Your task to perform on an android device: toggle pop-ups in chrome Image 0: 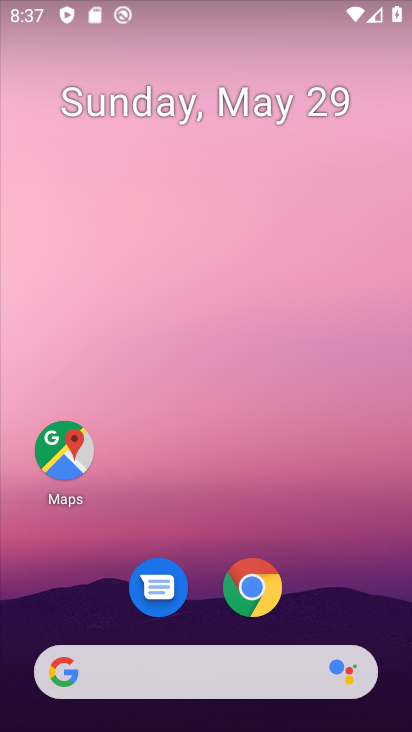
Step 0: click (261, 584)
Your task to perform on an android device: toggle pop-ups in chrome Image 1: 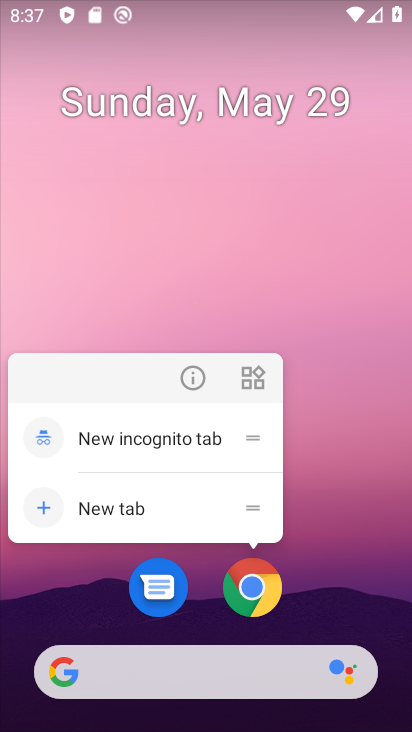
Step 1: click (246, 583)
Your task to perform on an android device: toggle pop-ups in chrome Image 2: 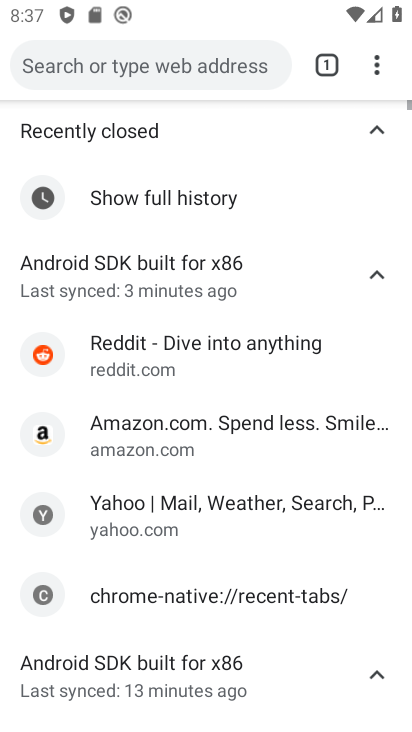
Step 2: drag from (375, 65) to (121, 547)
Your task to perform on an android device: toggle pop-ups in chrome Image 3: 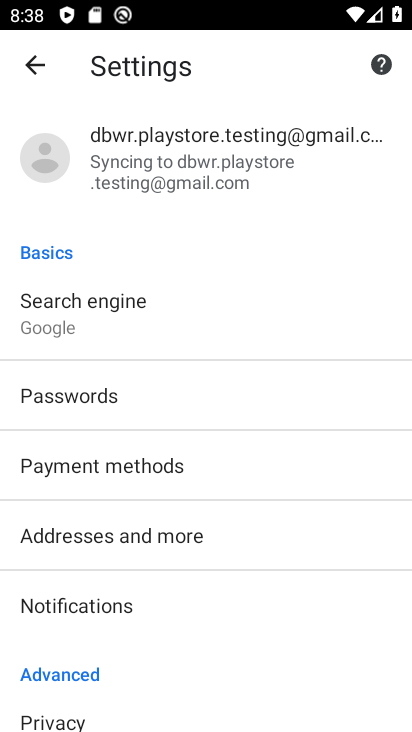
Step 3: drag from (158, 697) to (221, 216)
Your task to perform on an android device: toggle pop-ups in chrome Image 4: 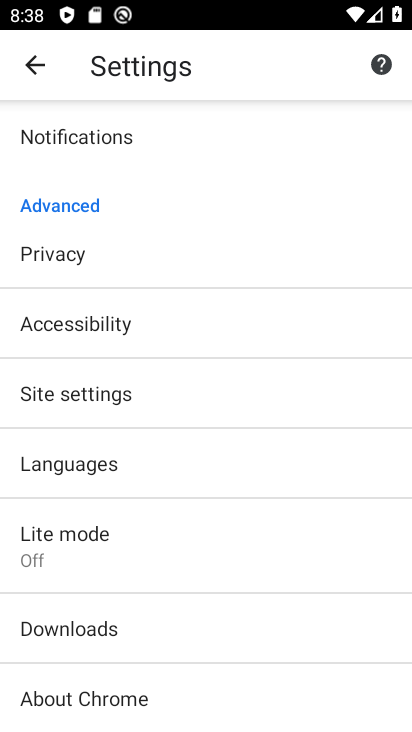
Step 4: click (116, 384)
Your task to perform on an android device: toggle pop-ups in chrome Image 5: 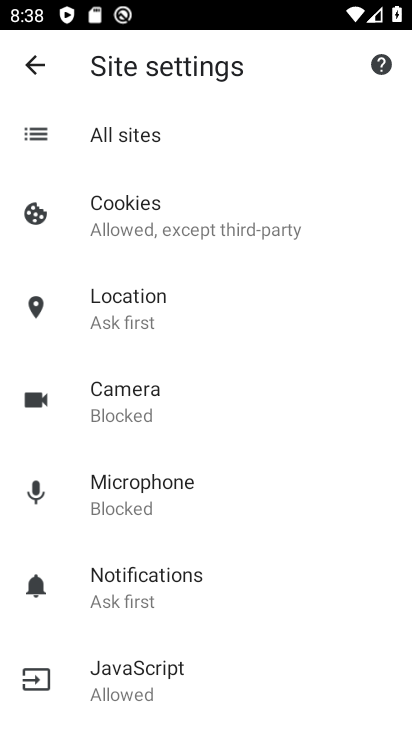
Step 5: drag from (169, 618) to (256, 140)
Your task to perform on an android device: toggle pop-ups in chrome Image 6: 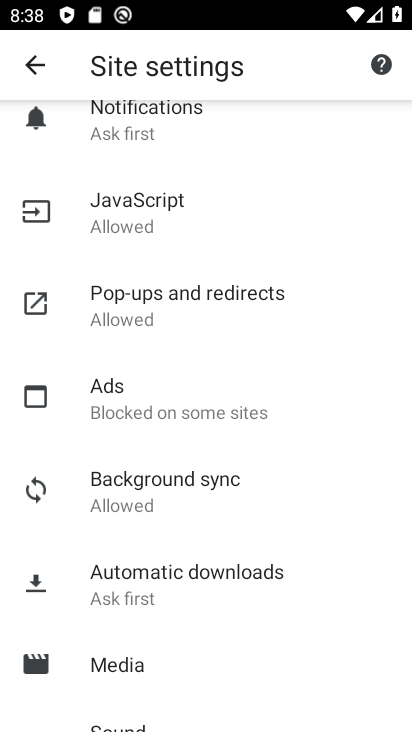
Step 6: click (156, 305)
Your task to perform on an android device: toggle pop-ups in chrome Image 7: 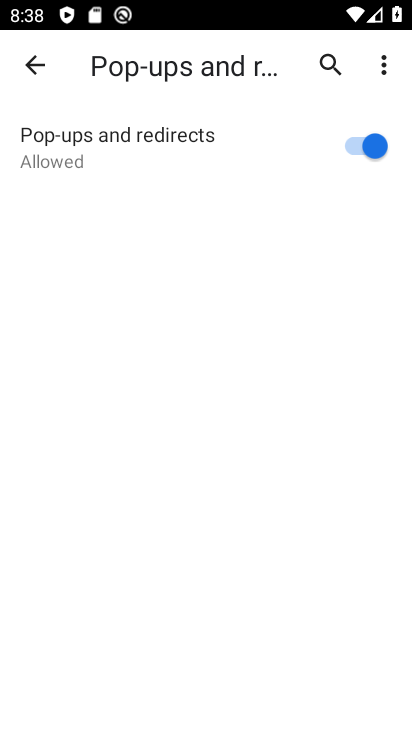
Step 7: click (373, 141)
Your task to perform on an android device: toggle pop-ups in chrome Image 8: 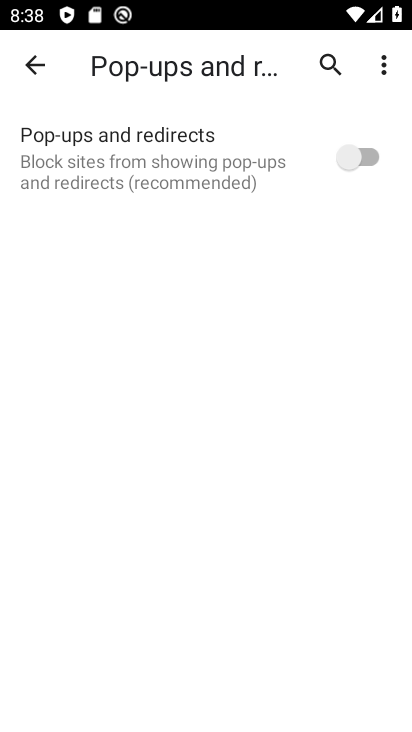
Step 8: task complete